Your task to perform on an android device: set default search engine in the chrome app Image 0: 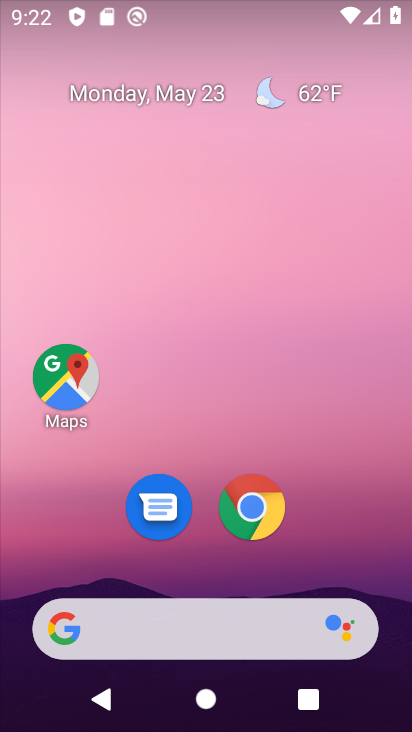
Step 0: click (252, 507)
Your task to perform on an android device: set default search engine in the chrome app Image 1: 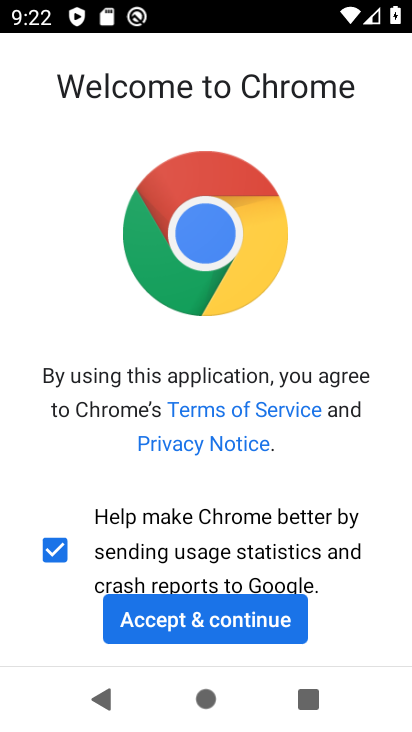
Step 1: click (211, 617)
Your task to perform on an android device: set default search engine in the chrome app Image 2: 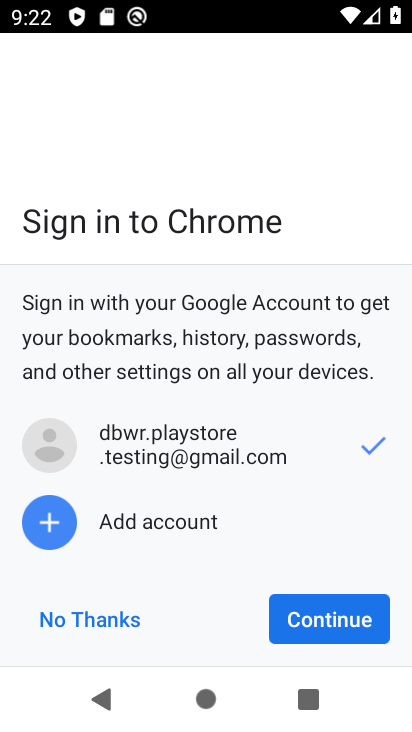
Step 2: click (323, 620)
Your task to perform on an android device: set default search engine in the chrome app Image 3: 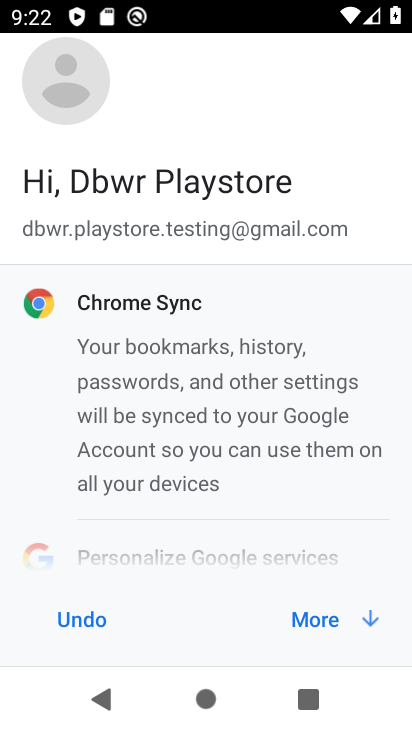
Step 3: click (323, 620)
Your task to perform on an android device: set default search engine in the chrome app Image 4: 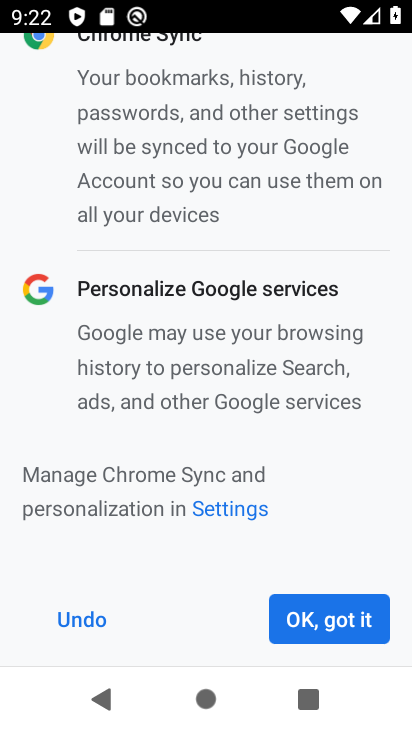
Step 4: click (323, 620)
Your task to perform on an android device: set default search engine in the chrome app Image 5: 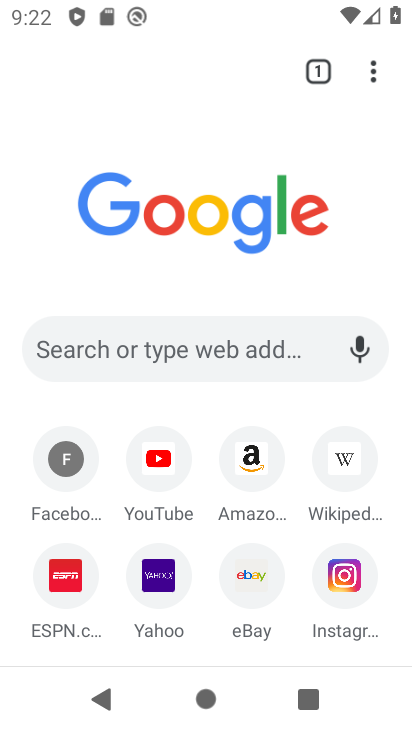
Step 5: click (375, 71)
Your task to perform on an android device: set default search engine in the chrome app Image 6: 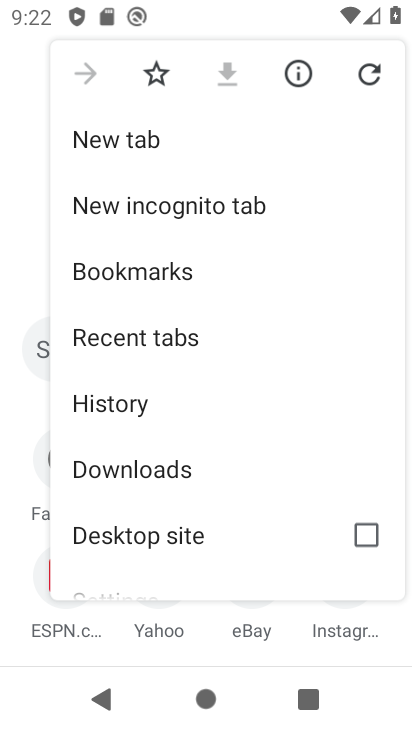
Step 6: drag from (160, 439) to (193, 365)
Your task to perform on an android device: set default search engine in the chrome app Image 7: 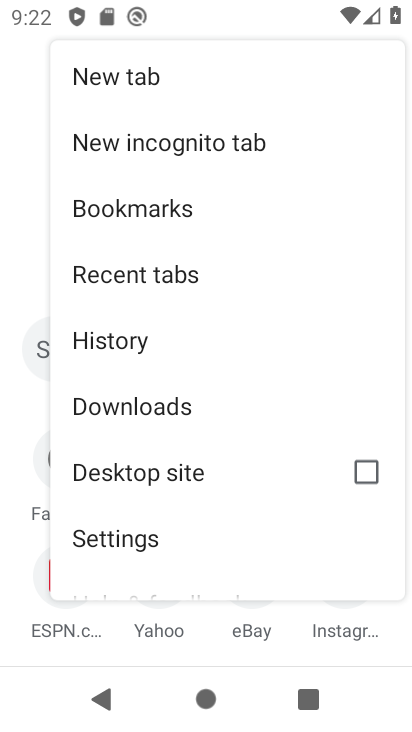
Step 7: drag from (156, 508) to (182, 447)
Your task to perform on an android device: set default search engine in the chrome app Image 8: 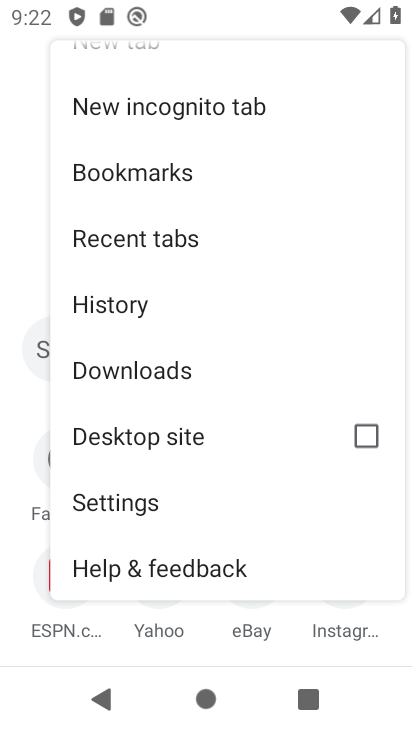
Step 8: click (120, 495)
Your task to perform on an android device: set default search engine in the chrome app Image 9: 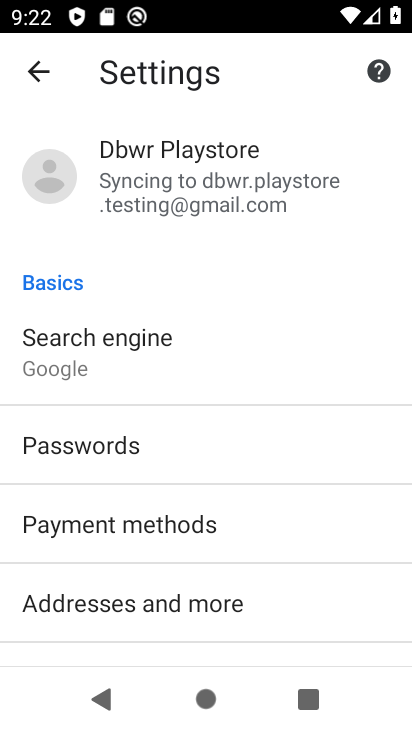
Step 9: click (79, 344)
Your task to perform on an android device: set default search engine in the chrome app Image 10: 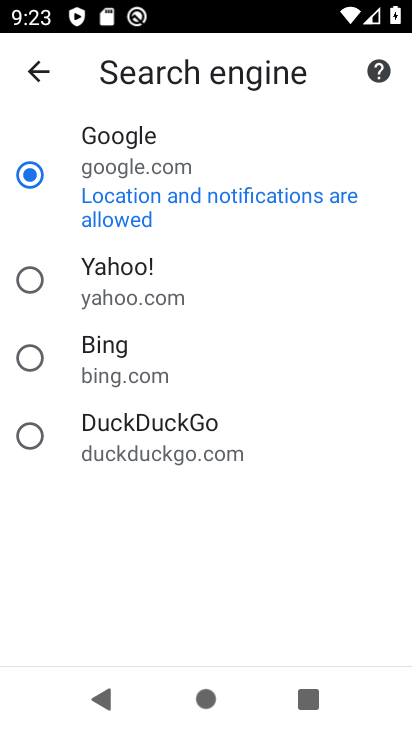
Step 10: click (34, 367)
Your task to perform on an android device: set default search engine in the chrome app Image 11: 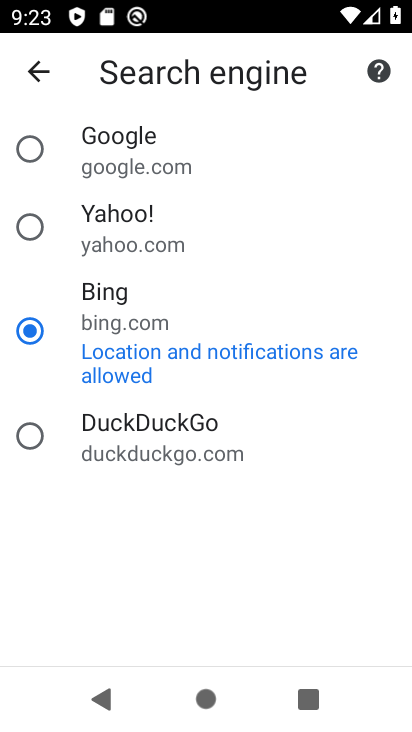
Step 11: task complete